Your task to perform on an android device: turn off location Image 0: 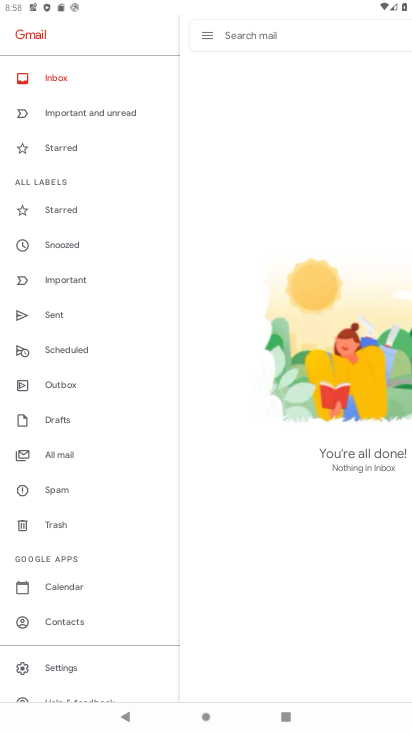
Step 0: press home button
Your task to perform on an android device: turn off location Image 1: 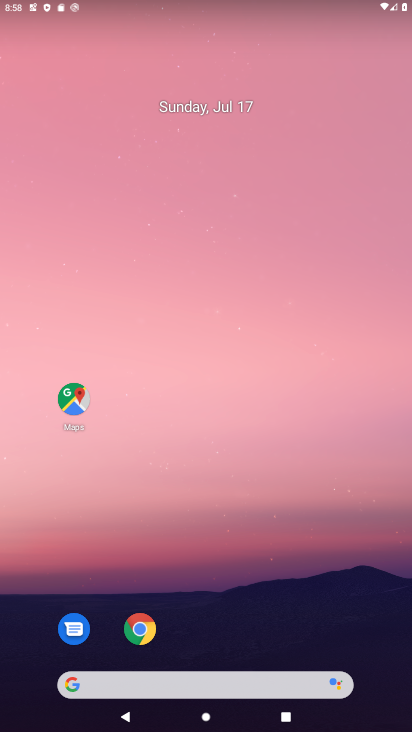
Step 1: drag from (228, 601) to (208, 99)
Your task to perform on an android device: turn off location Image 2: 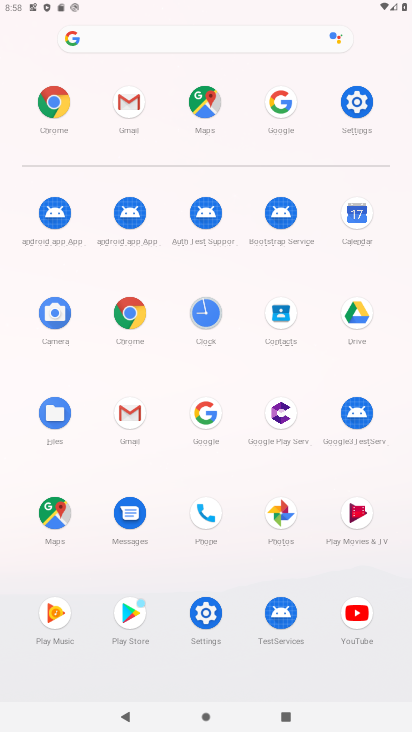
Step 2: click (358, 105)
Your task to perform on an android device: turn off location Image 3: 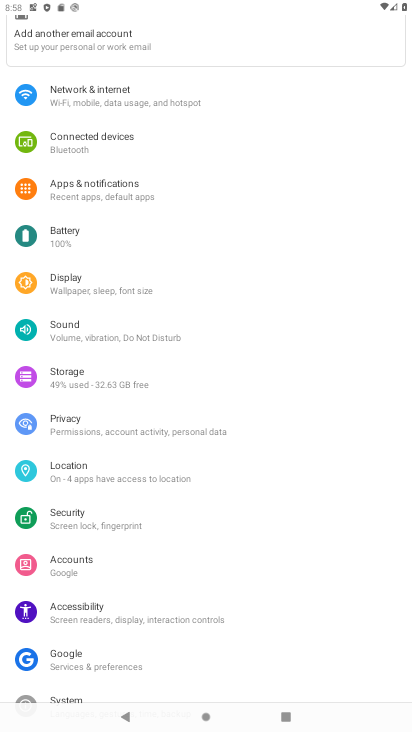
Step 3: click (65, 475)
Your task to perform on an android device: turn off location Image 4: 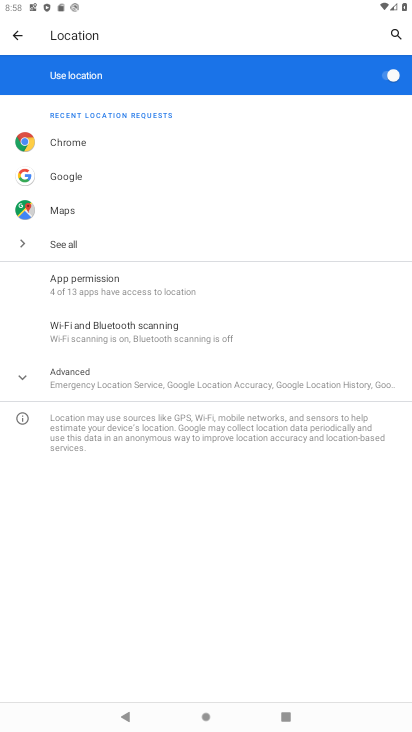
Step 4: click (386, 78)
Your task to perform on an android device: turn off location Image 5: 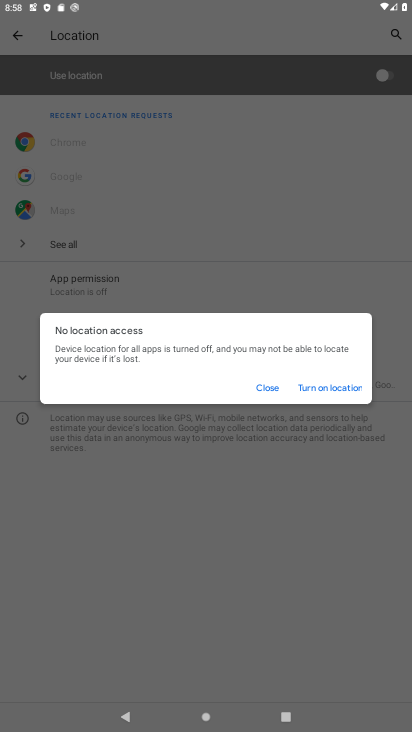
Step 5: click (266, 388)
Your task to perform on an android device: turn off location Image 6: 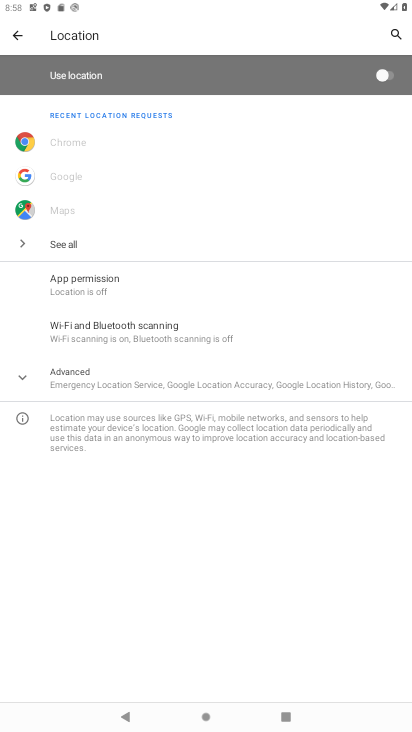
Step 6: task complete